Your task to perform on an android device: Search for coffee table on Crate & Barrel Image 0: 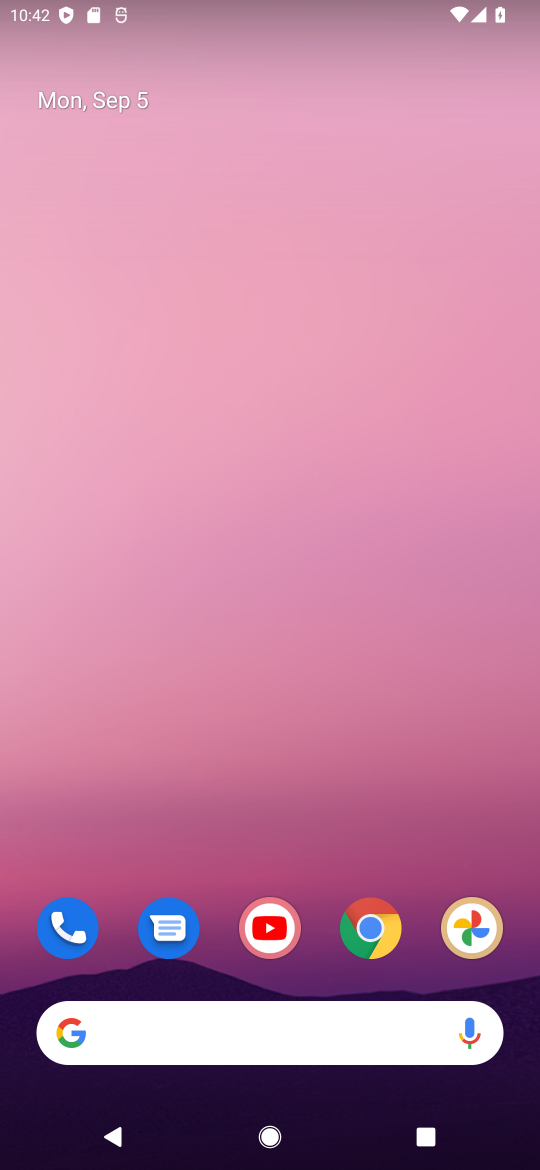
Step 0: drag from (335, 948) to (421, 52)
Your task to perform on an android device: Search for coffee table on Crate & Barrel Image 1: 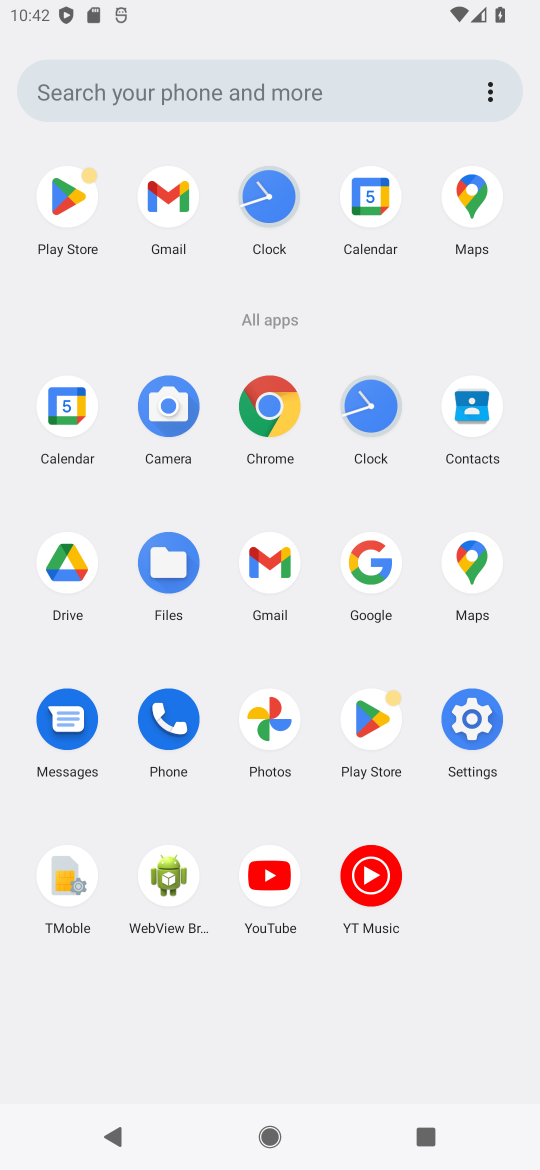
Step 1: click (276, 394)
Your task to perform on an android device: Search for coffee table on Crate & Barrel Image 2: 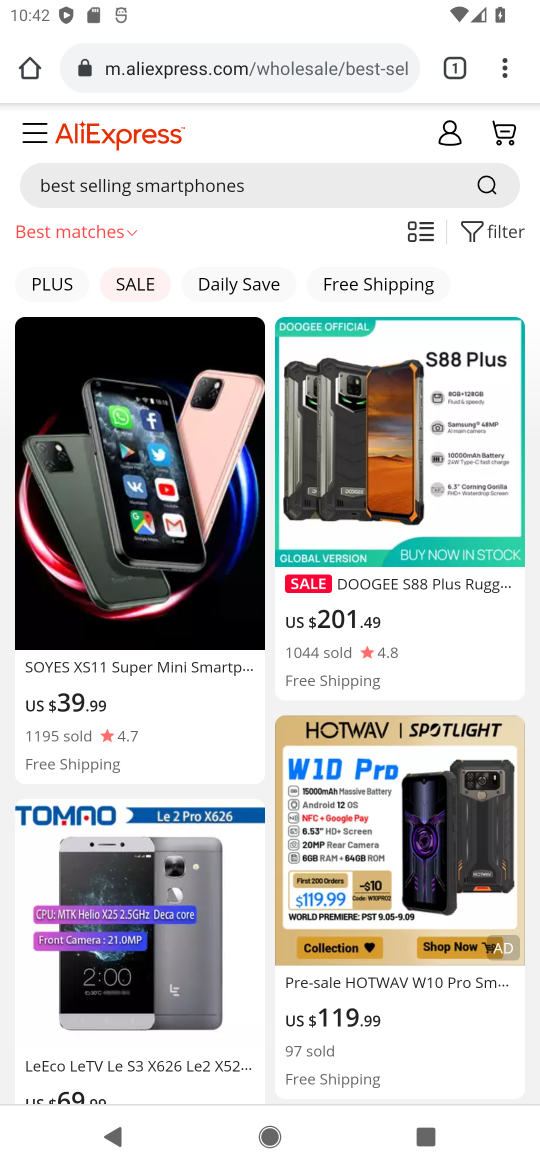
Step 2: click (302, 64)
Your task to perform on an android device: Search for coffee table on Crate & Barrel Image 3: 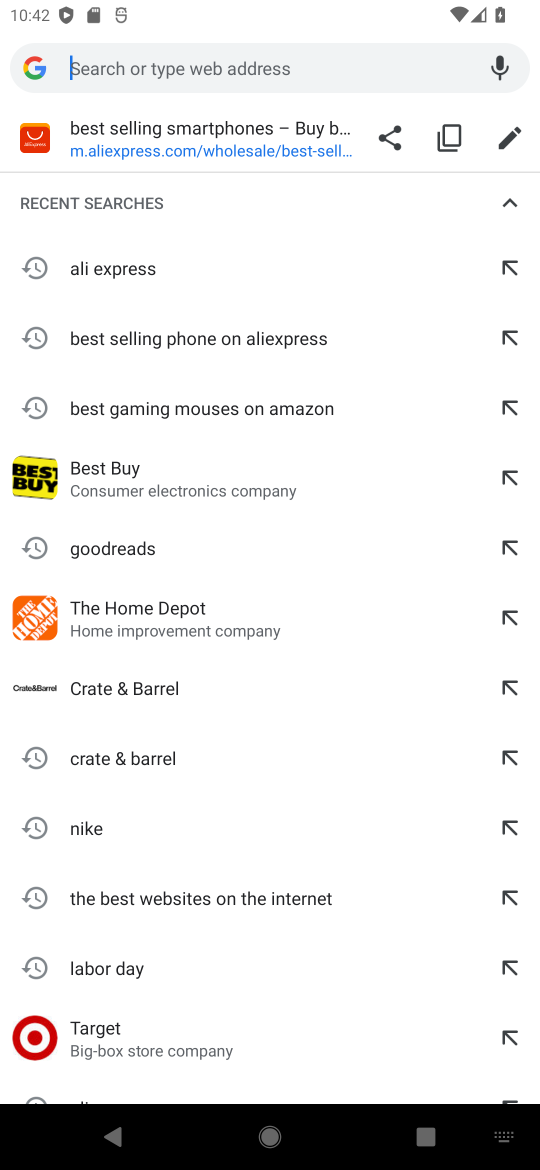
Step 3: type "coffee table on Crate & Barrel"
Your task to perform on an android device: Search for coffee table on Crate & Barrel Image 4: 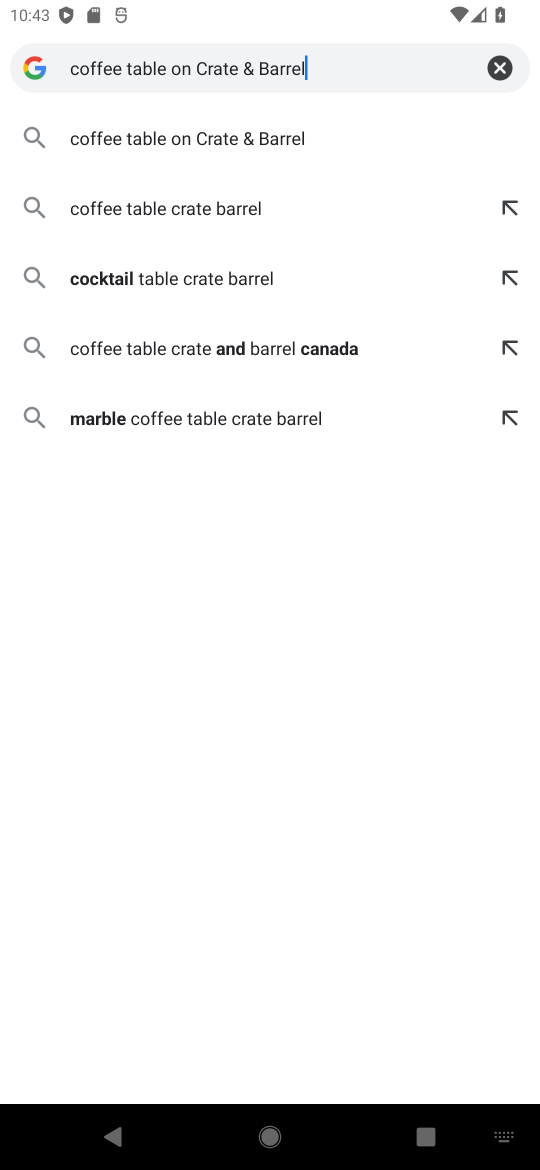
Step 4: press enter
Your task to perform on an android device: Search for coffee table on Crate & Barrel Image 5: 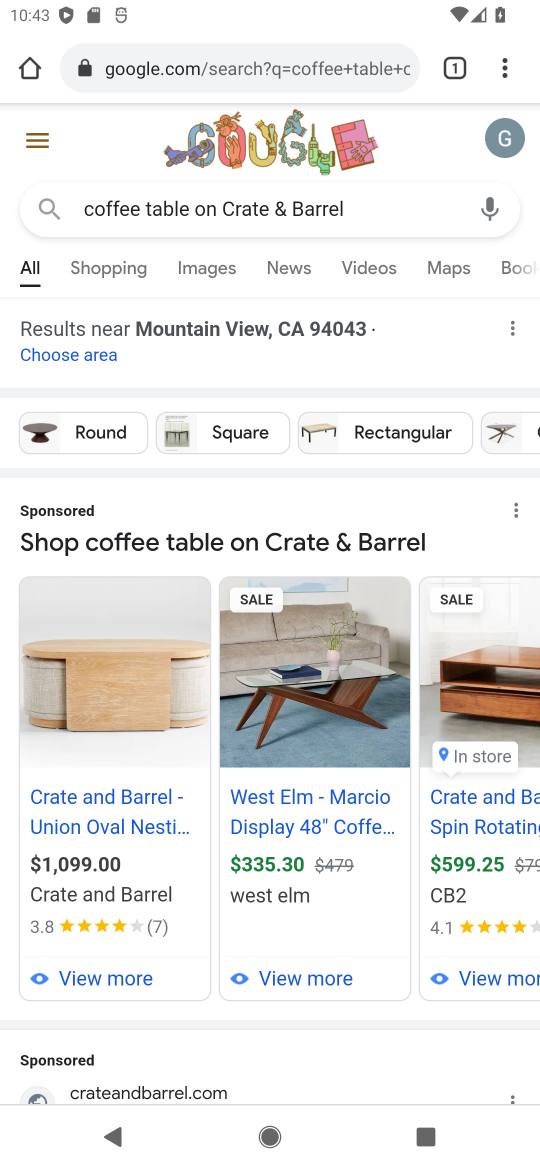
Step 5: drag from (300, 992) to (284, 323)
Your task to perform on an android device: Search for coffee table on Crate & Barrel Image 6: 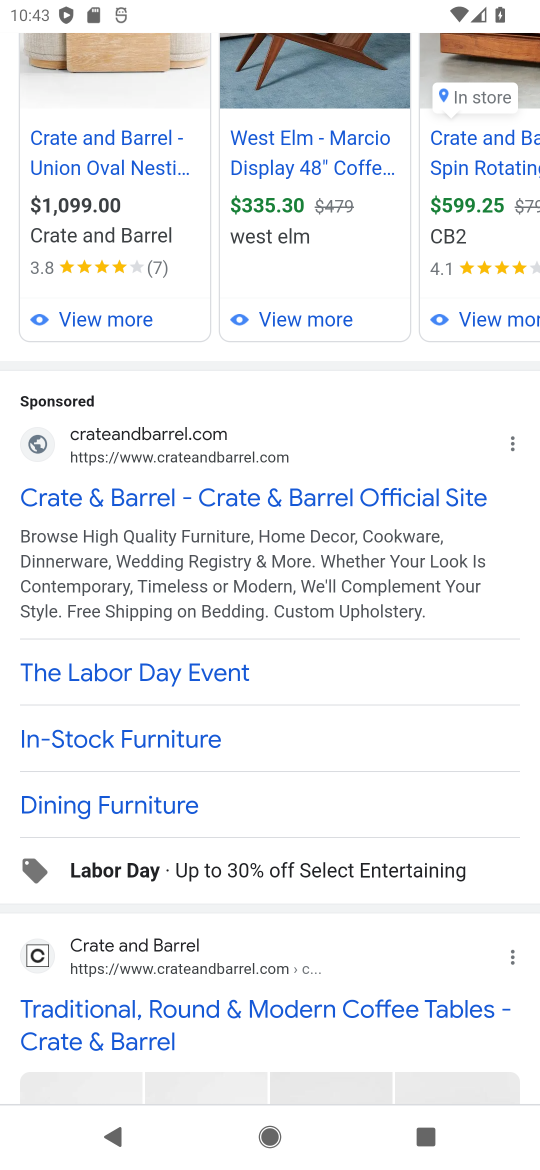
Step 6: click (215, 496)
Your task to perform on an android device: Search for coffee table on Crate & Barrel Image 7: 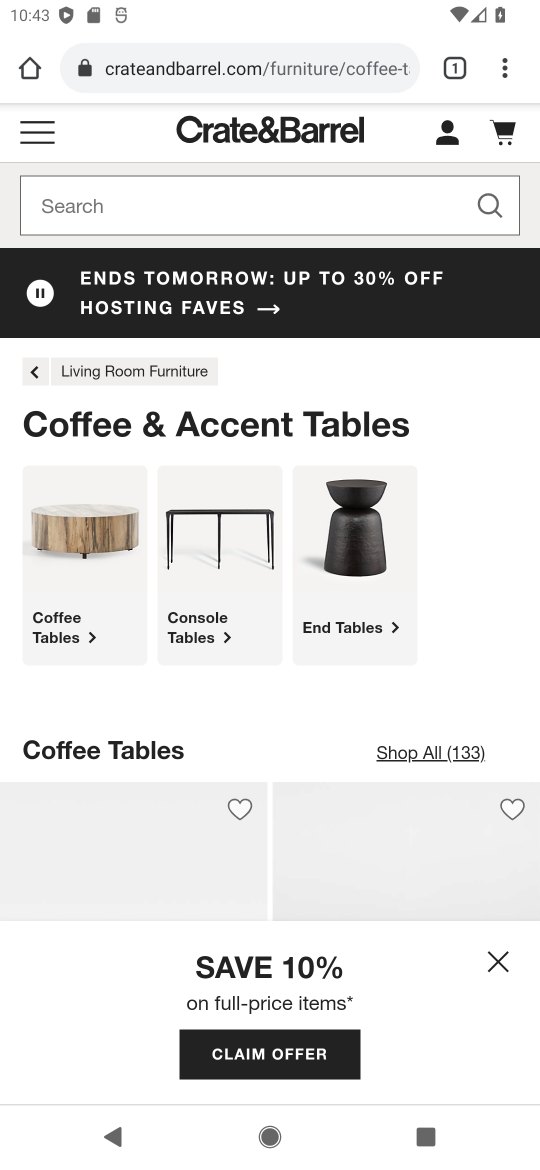
Step 7: drag from (287, 764) to (360, 353)
Your task to perform on an android device: Search for coffee table on Crate & Barrel Image 8: 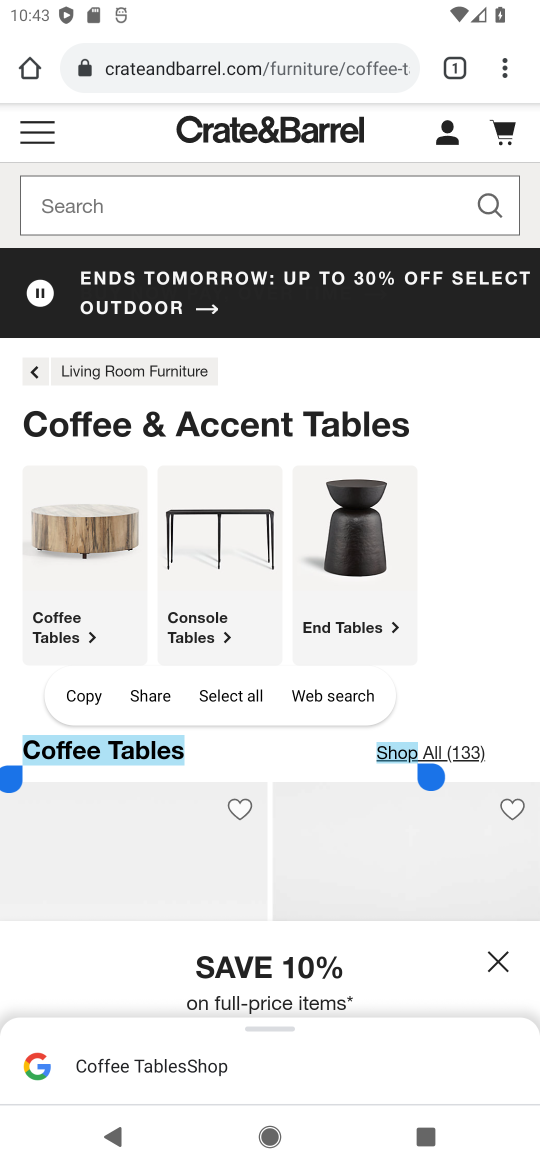
Step 8: click (269, 762)
Your task to perform on an android device: Search for coffee table on Crate & Barrel Image 9: 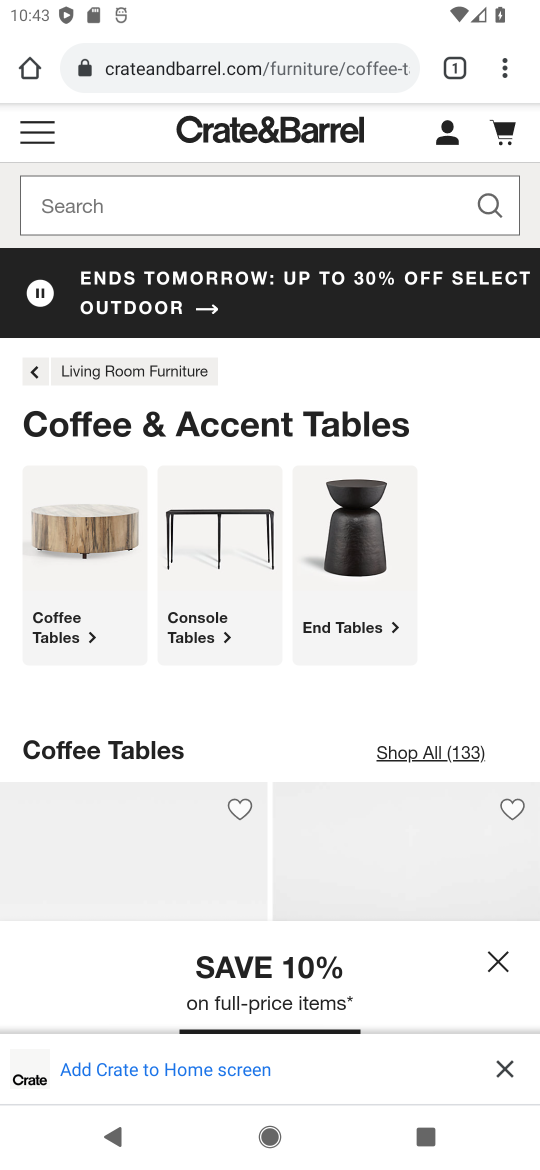
Step 9: task complete